Your task to perform on an android device: Open location settings Image 0: 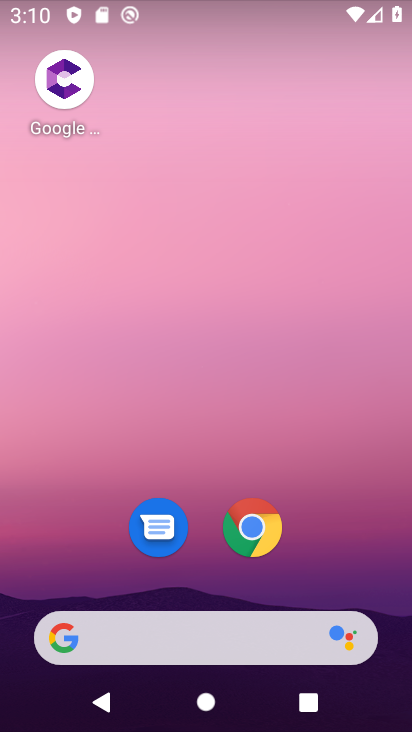
Step 0: drag from (364, 556) to (402, 105)
Your task to perform on an android device: Open location settings Image 1: 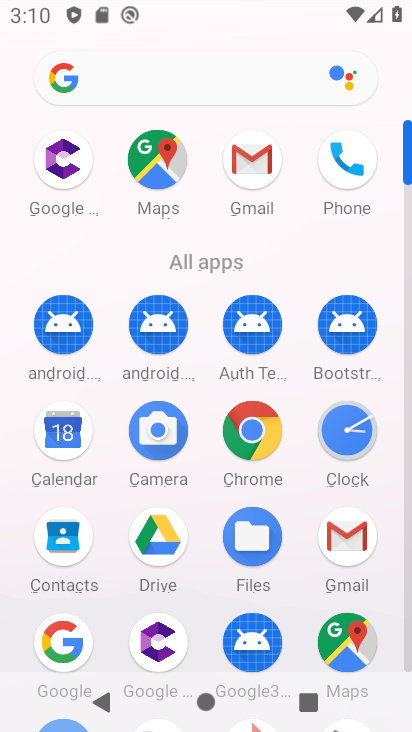
Step 1: drag from (315, 583) to (307, 140)
Your task to perform on an android device: Open location settings Image 2: 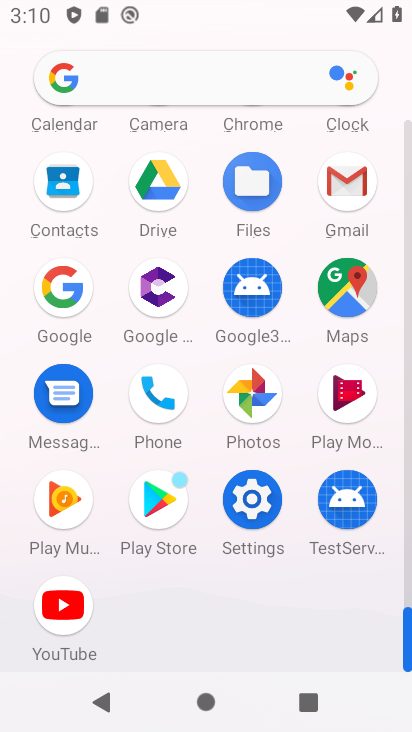
Step 2: click (255, 508)
Your task to perform on an android device: Open location settings Image 3: 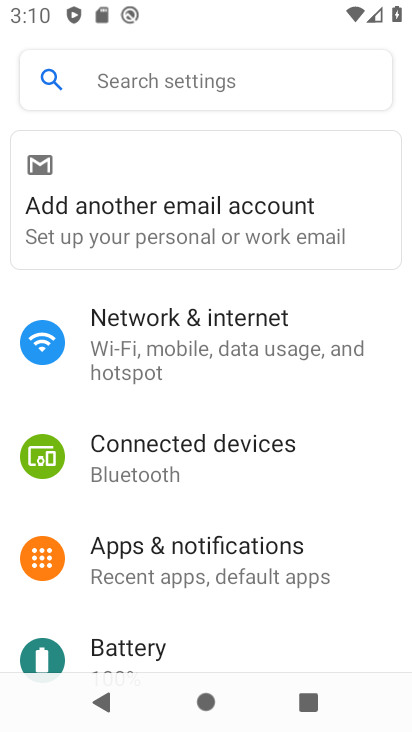
Step 3: drag from (291, 614) to (244, 344)
Your task to perform on an android device: Open location settings Image 4: 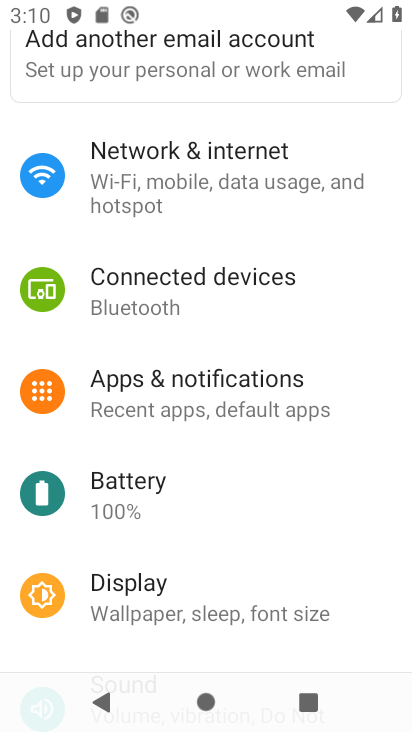
Step 4: drag from (280, 552) to (259, 350)
Your task to perform on an android device: Open location settings Image 5: 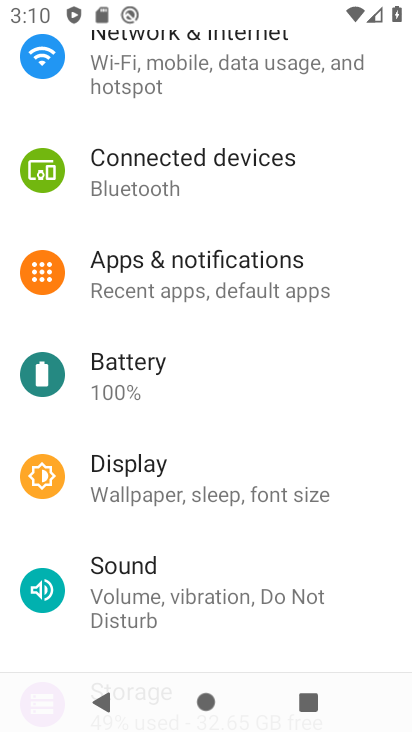
Step 5: drag from (230, 577) to (201, 196)
Your task to perform on an android device: Open location settings Image 6: 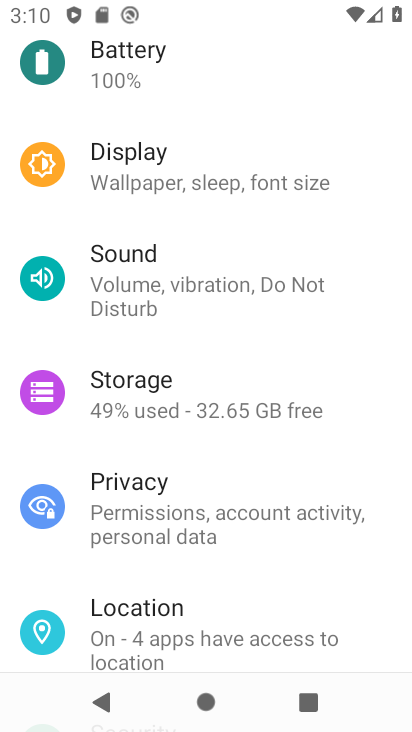
Step 6: click (209, 634)
Your task to perform on an android device: Open location settings Image 7: 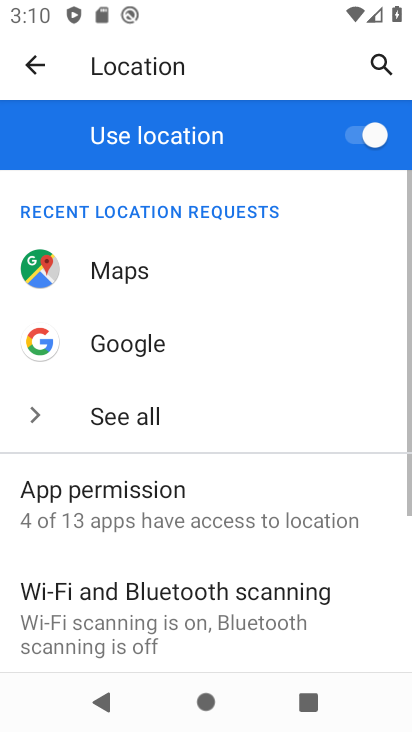
Step 7: task complete